Your task to perform on an android device: Open Google Chrome and open the bookmarks view Image 0: 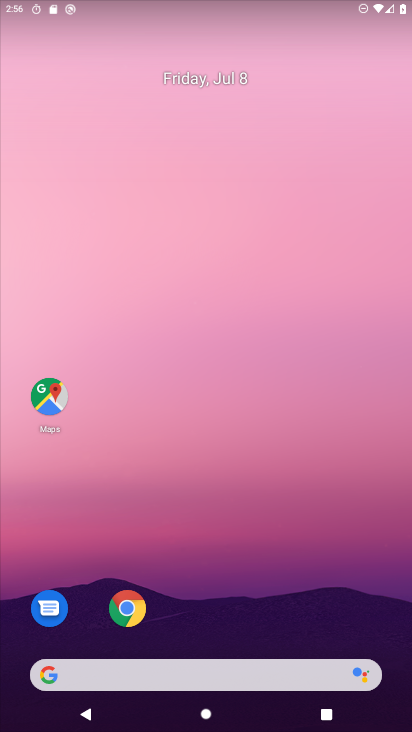
Step 0: click (130, 611)
Your task to perform on an android device: Open Google Chrome and open the bookmarks view Image 1: 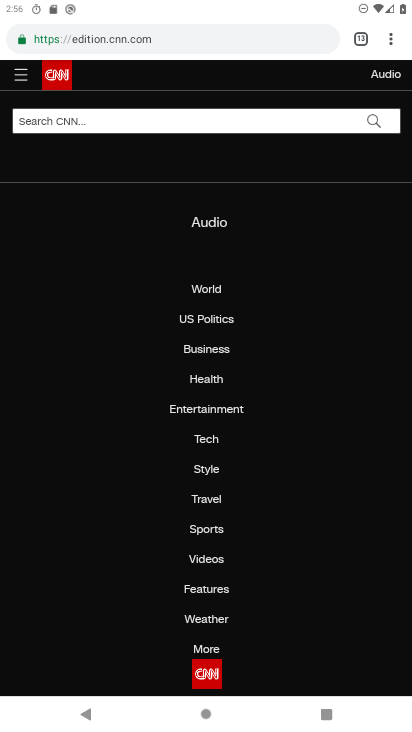
Step 1: click (392, 42)
Your task to perform on an android device: Open Google Chrome and open the bookmarks view Image 2: 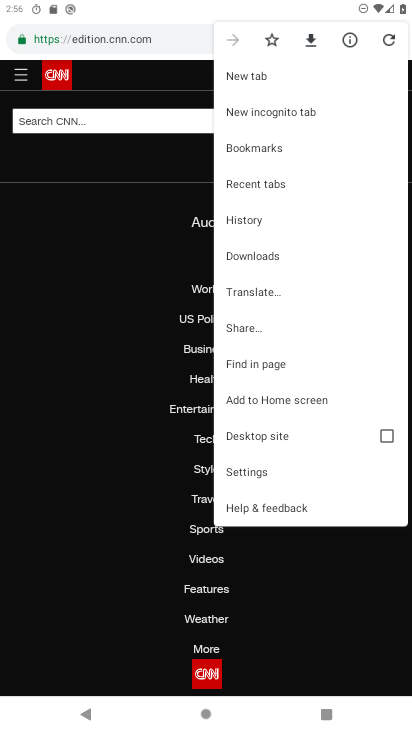
Step 2: click (264, 145)
Your task to perform on an android device: Open Google Chrome and open the bookmarks view Image 3: 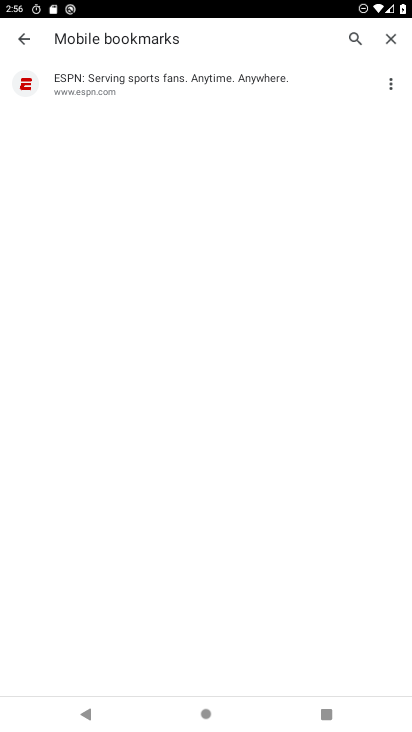
Step 3: click (203, 83)
Your task to perform on an android device: Open Google Chrome and open the bookmarks view Image 4: 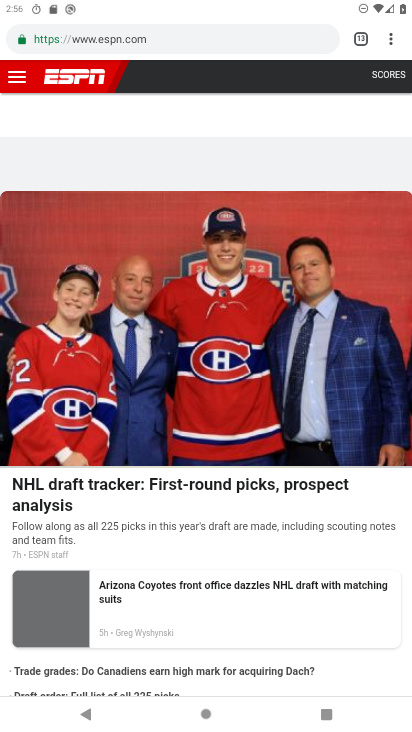
Step 4: task complete